Your task to perform on an android device: Check the weather Image 0: 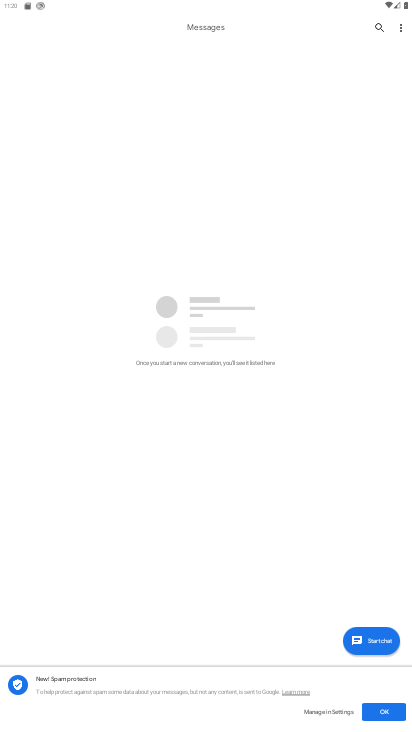
Step 0: press home button
Your task to perform on an android device: Check the weather Image 1: 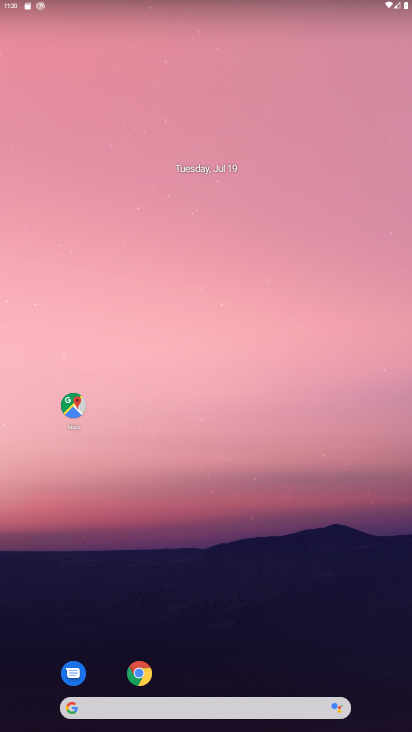
Step 1: click (137, 668)
Your task to perform on an android device: Check the weather Image 2: 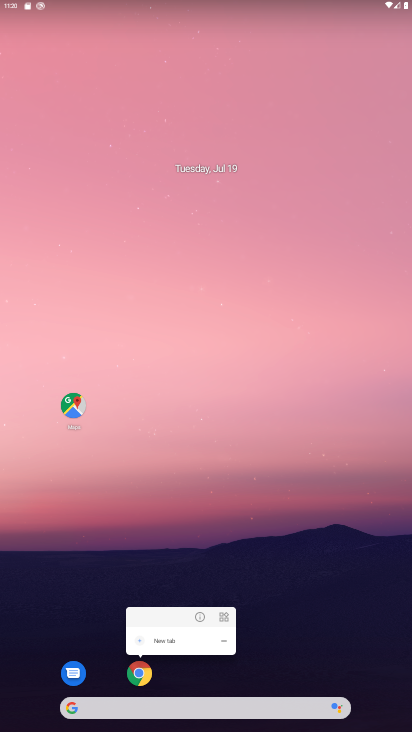
Step 2: click (144, 675)
Your task to perform on an android device: Check the weather Image 3: 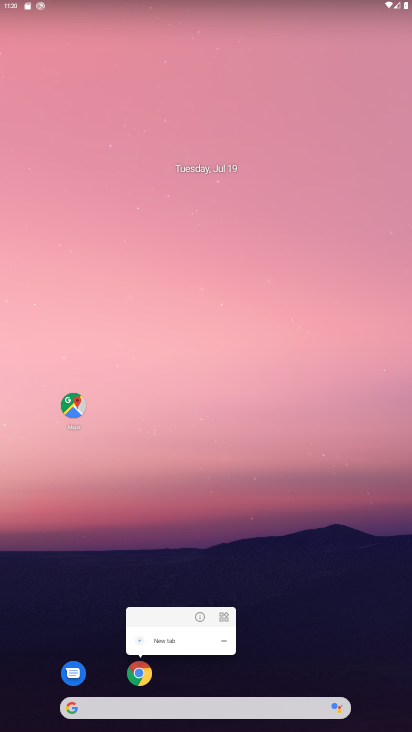
Step 3: click (144, 675)
Your task to perform on an android device: Check the weather Image 4: 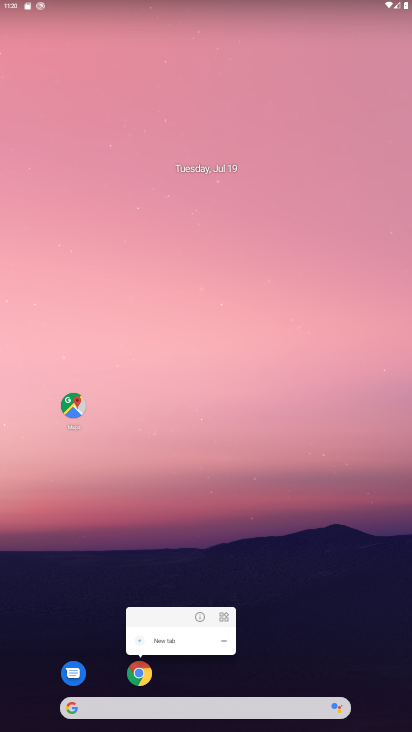
Step 4: click (132, 674)
Your task to perform on an android device: Check the weather Image 5: 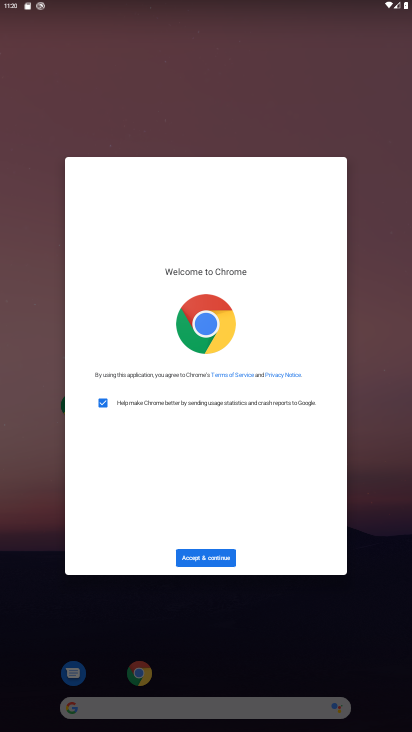
Step 5: click (182, 558)
Your task to perform on an android device: Check the weather Image 6: 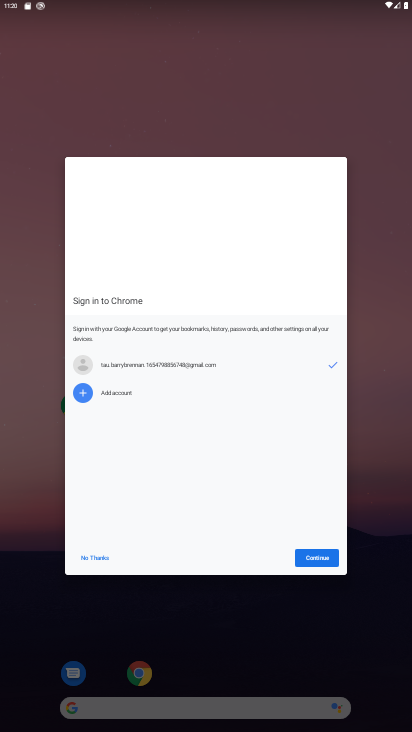
Step 6: click (320, 552)
Your task to perform on an android device: Check the weather Image 7: 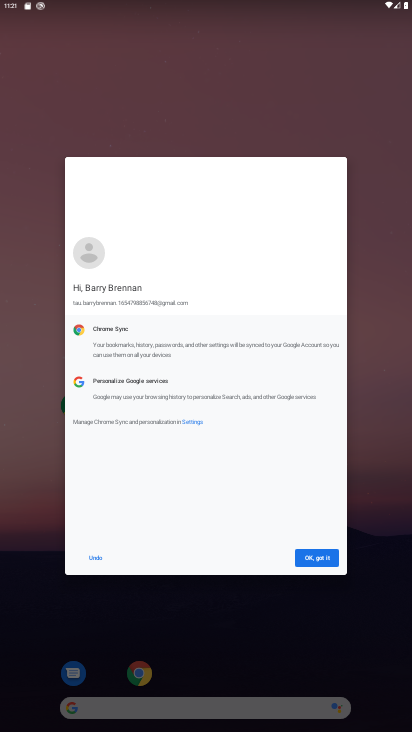
Step 7: click (325, 552)
Your task to perform on an android device: Check the weather Image 8: 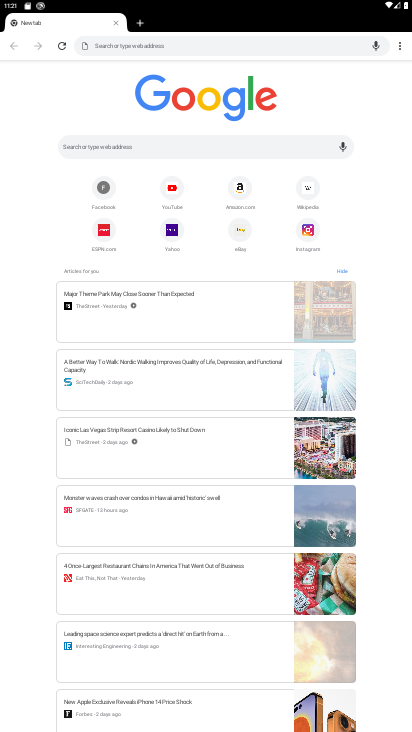
Step 8: click (162, 139)
Your task to perform on an android device: Check the weather Image 9: 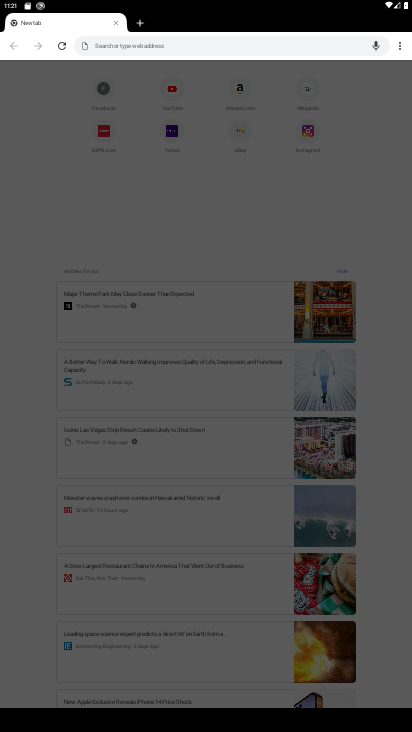
Step 9: type "Check the weather"
Your task to perform on an android device: Check the weather Image 10: 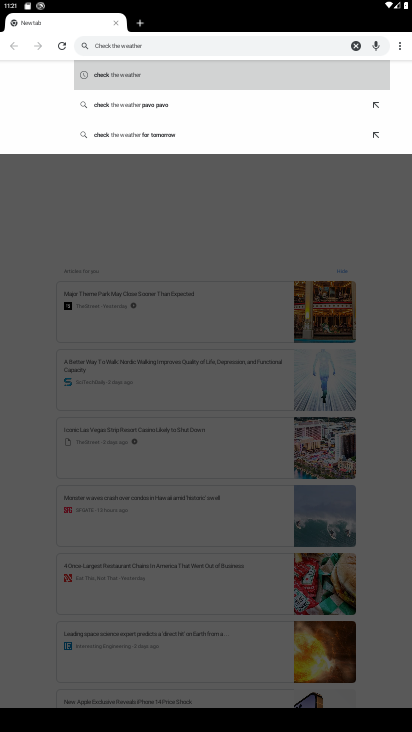
Step 10: press enter
Your task to perform on an android device: Check the weather Image 11: 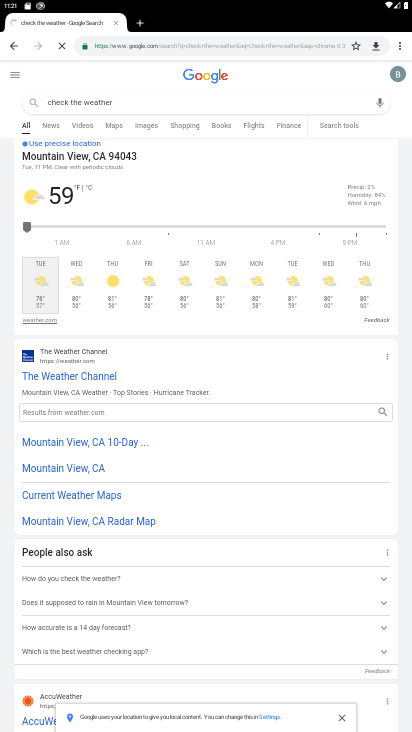
Step 11: task complete